Your task to perform on an android device: Open Chrome and go to the settings page Image 0: 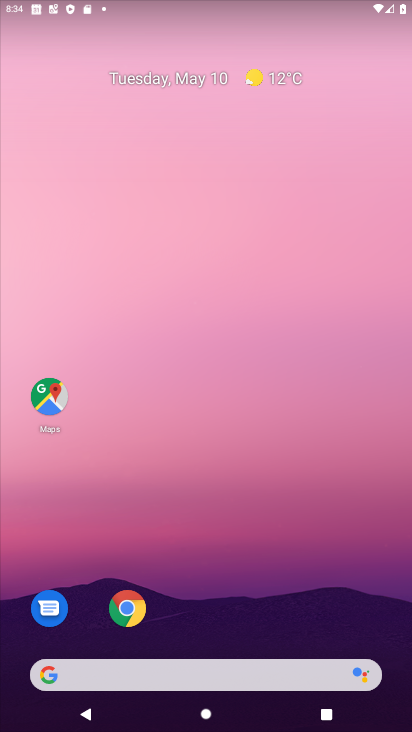
Step 0: click (133, 620)
Your task to perform on an android device: Open Chrome and go to the settings page Image 1: 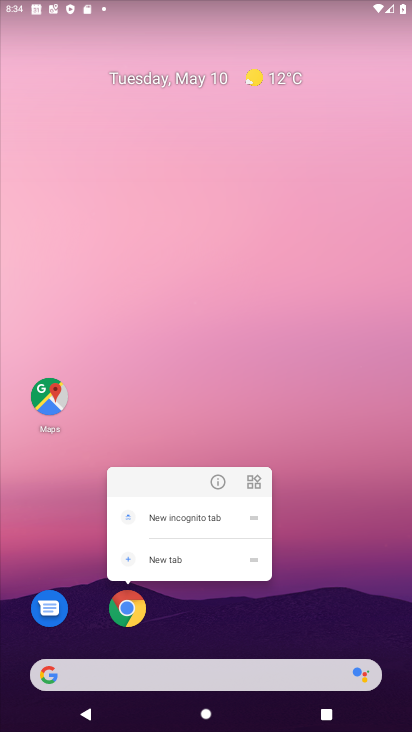
Step 1: click (133, 620)
Your task to perform on an android device: Open Chrome and go to the settings page Image 2: 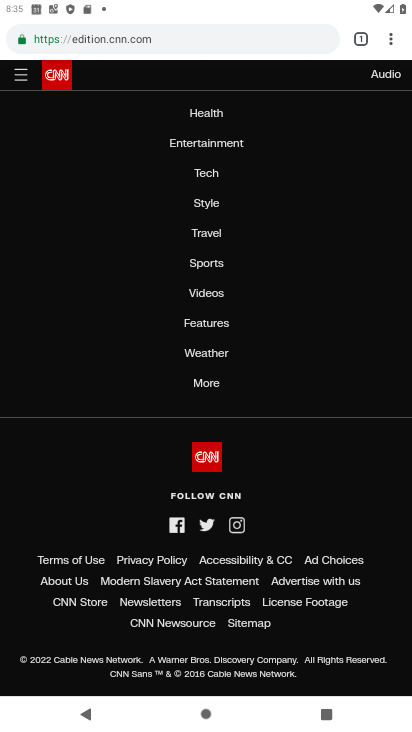
Step 2: task complete